Your task to perform on an android device: Open eBay Image 0: 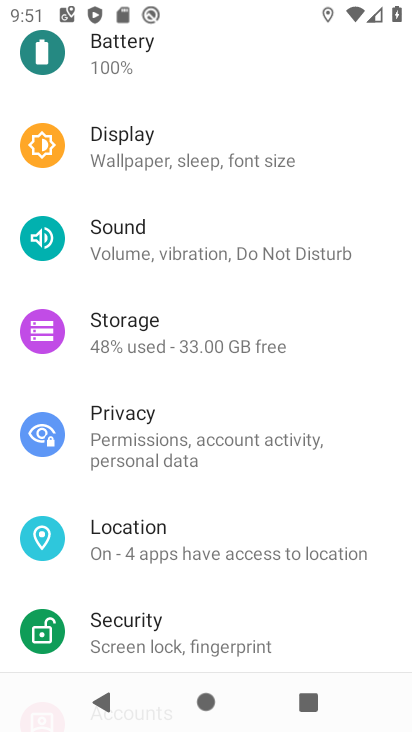
Step 0: press home button
Your task to perform on an android device: Open eBay Image 1: 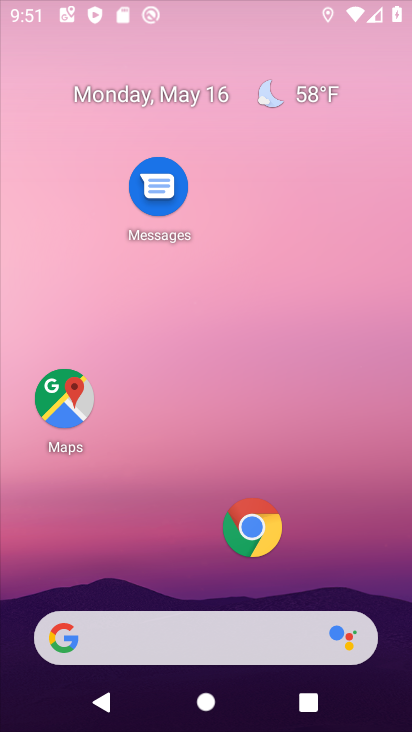
Step 1: drag from (147, 550) to (138, 4)
Your task to perform on an android device: Open eBay Image 2: 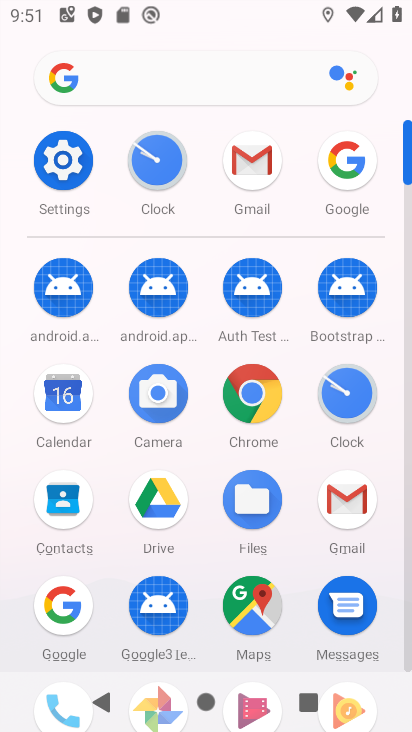
Step 2: click (351, 161)
Your task to perform on an android device: Open eBay Image 3: 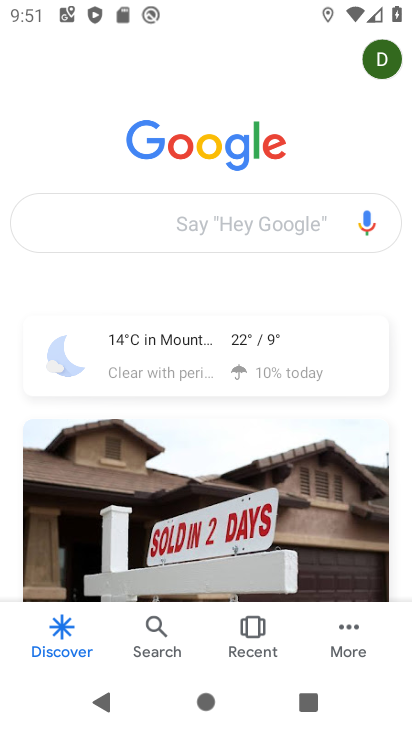
Step 3: click (147, 230)
Your task to perform on an android device: Open eBay Image 4: 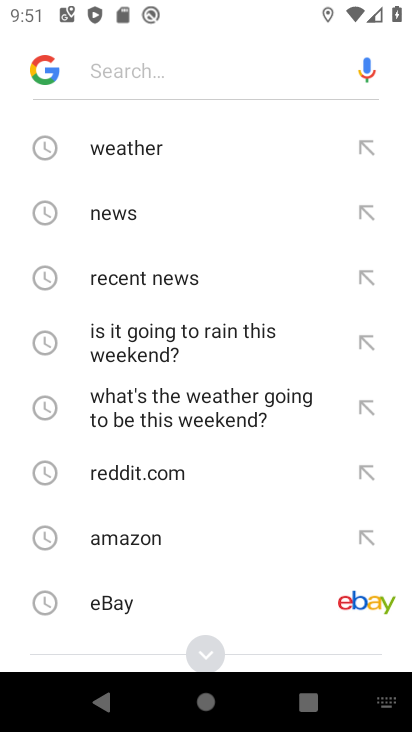
Step 4: click (142, 600)
Your task to perform on an android device: Open eBay Image 5: 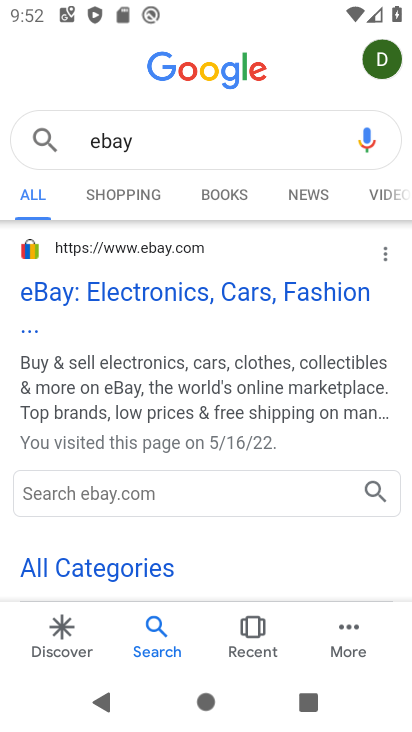
Step 5: task complete